Your task to perform on an android device: set an alarm Image 0: 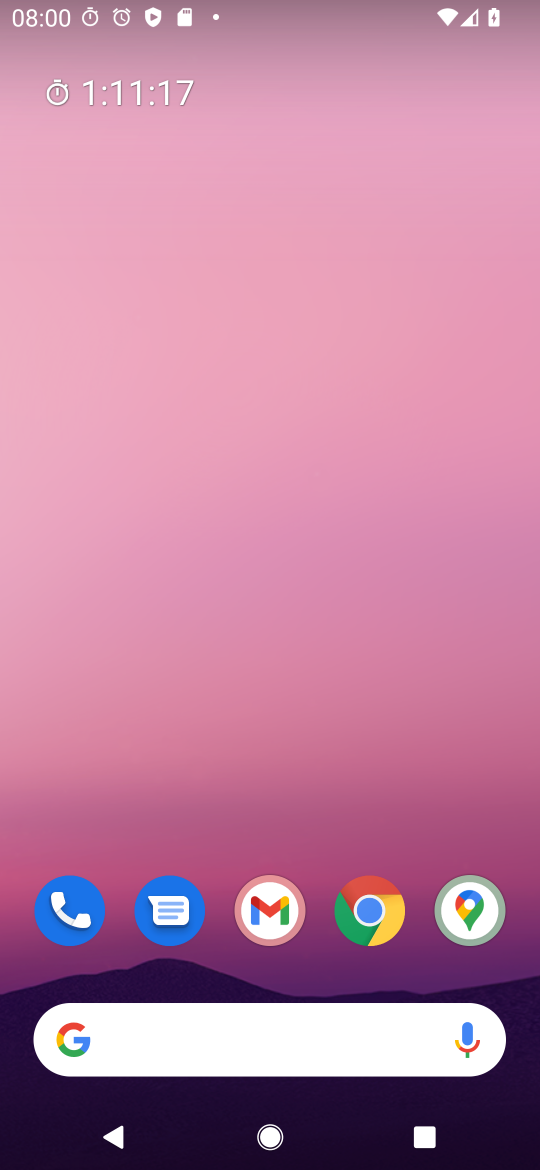
Step 0: drag from (270, 1026) to (274, 50)
Your task to perform on an android device: set an alarm Image 1: 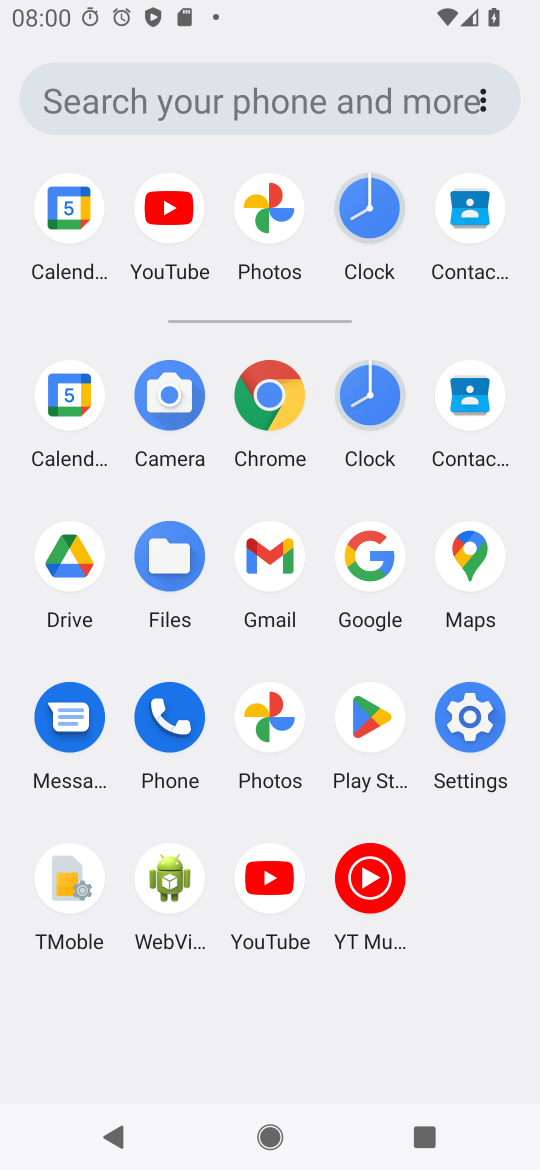
Step 1: click (371, 411)
Your task to perform on an android device: set an alarm Image 2: 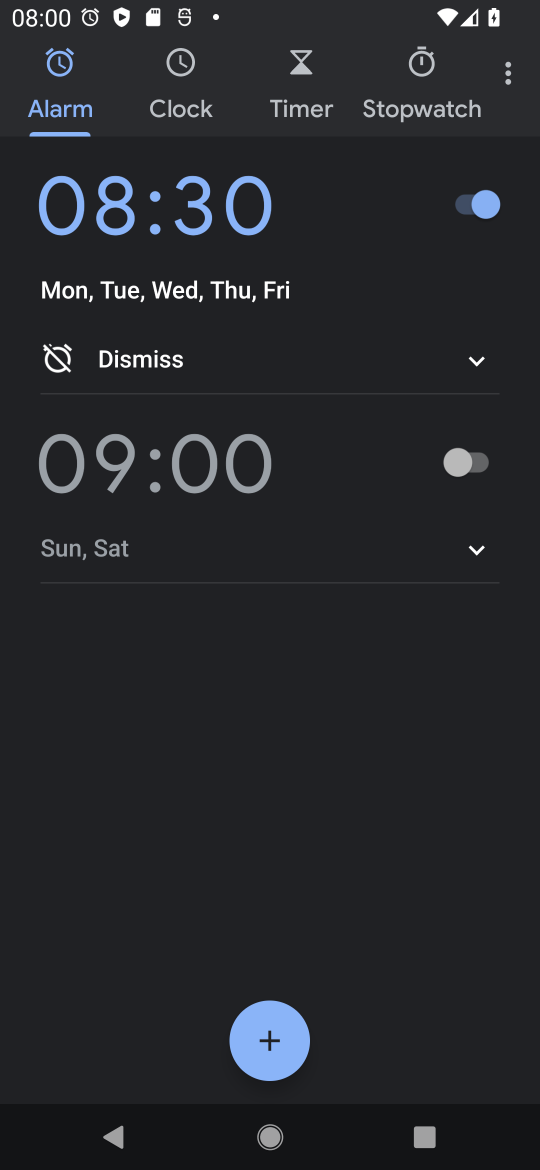
Step 2: task complete